Your task to perform on an android device: set an alarm Image 0: 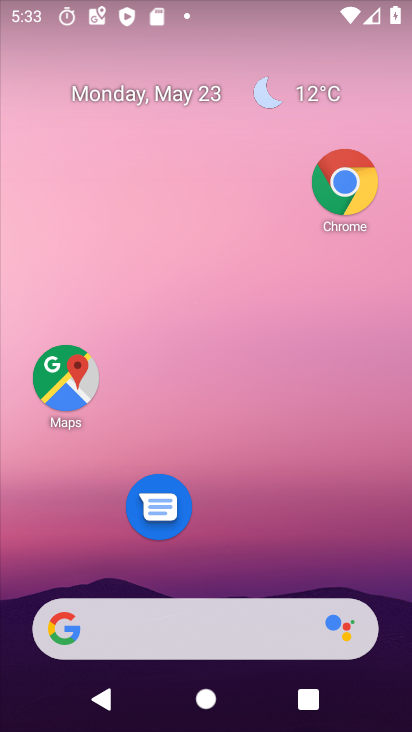
Step 0: drag from (250, 558) to (238, 116)
Your task to perform on an android device: set an alarm Image 1: 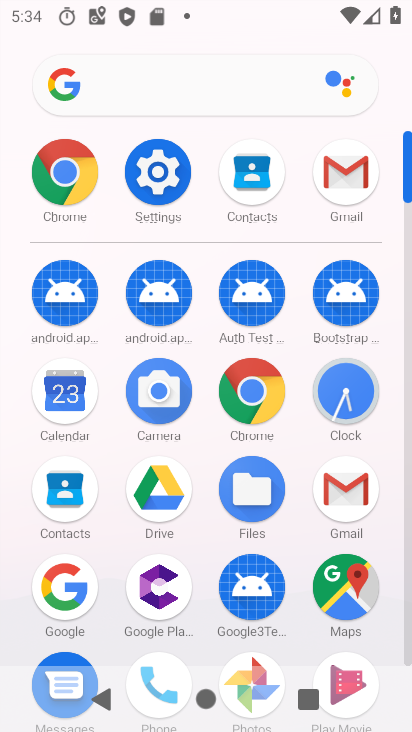
Step 1: click (331, 389)
Your task to perform on an android device: set an alarm Image 2: 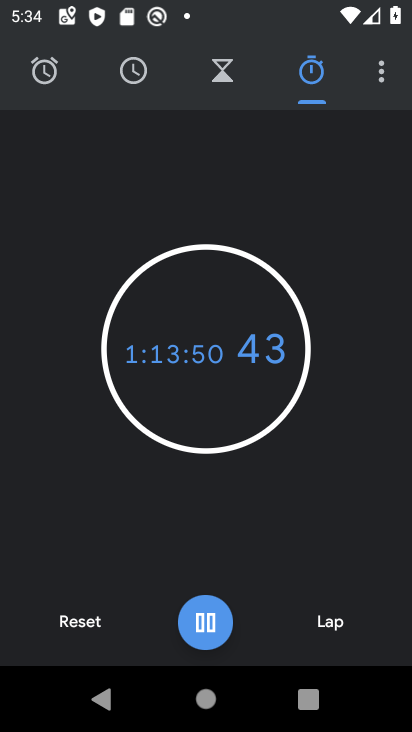
Step 2: click (36, 78)
Your task to perform on an android device: set an alarm Image 3: 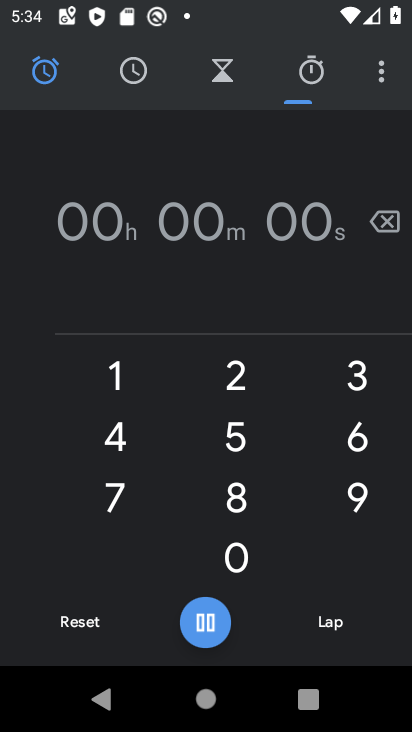
Step 3: click (42, 74)
Your task to perform on an android device: set an alarm Image 4: 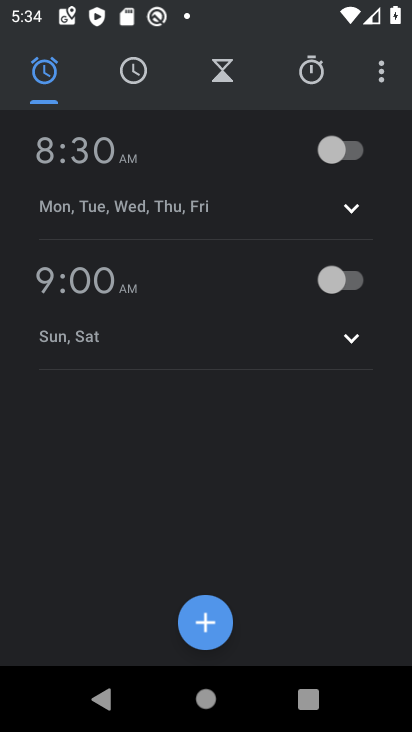
Step 4: click (358, 272)
Your task to perform on an android device: set an alarm Image 5: 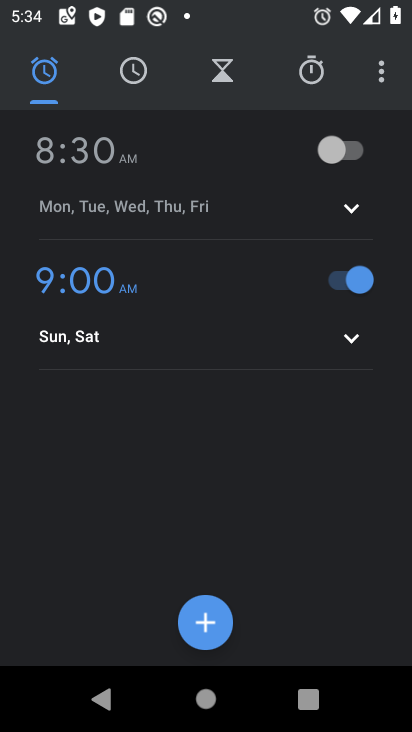
Step 5: task complete